Your task to perform on an android device: Open the Play Movies app and select the watchlist tab. Image 0: 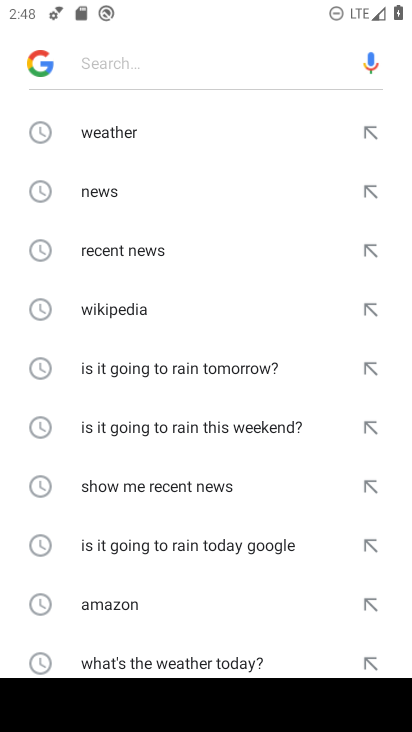
Step 0: press home button
Your task to perform on an android device: Open the Play Movies app and select the watchlist tab. Image 1: 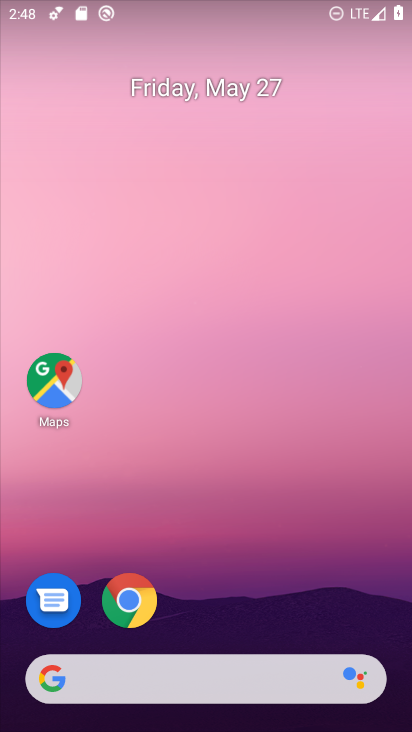
Step 1: drag from (203, 724) to (214, 53)
Your task to perform on an android device: Open the Play Movies app and select the watchlist tab. Image 2: 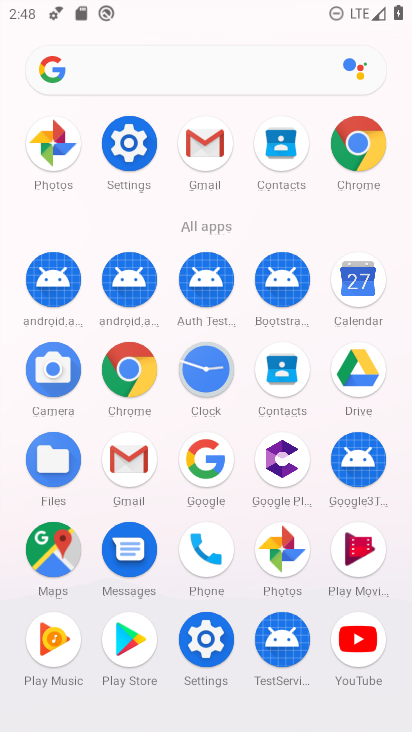
Step 2: click (364, 557)
Your task to perform on an android device: Open the Play Movies app and select the watchlist tab. Image 3: 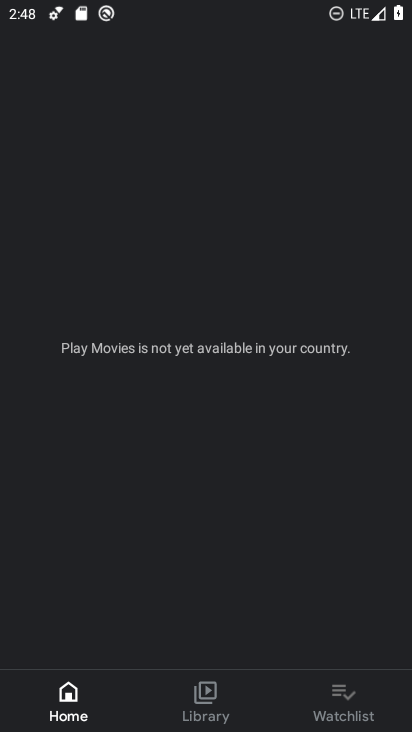
Step 3: click (344, 697)
Your task to perform on an android device: Open the Play Movies app and select the watchlist tab. Image 4: 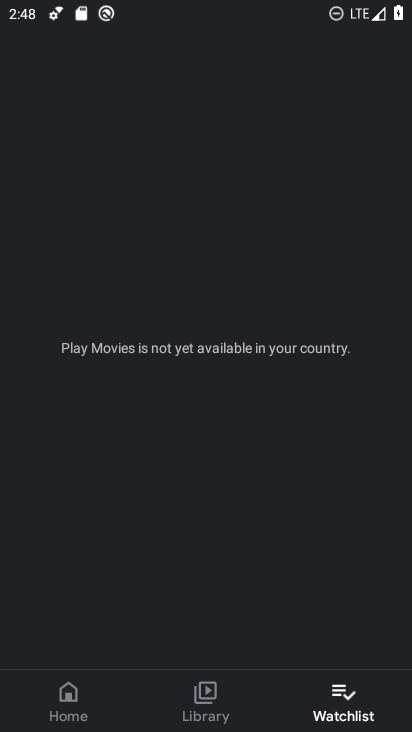
Step 4: task complete